Your task to perform on an android device: turn off airplane mode Image 0: 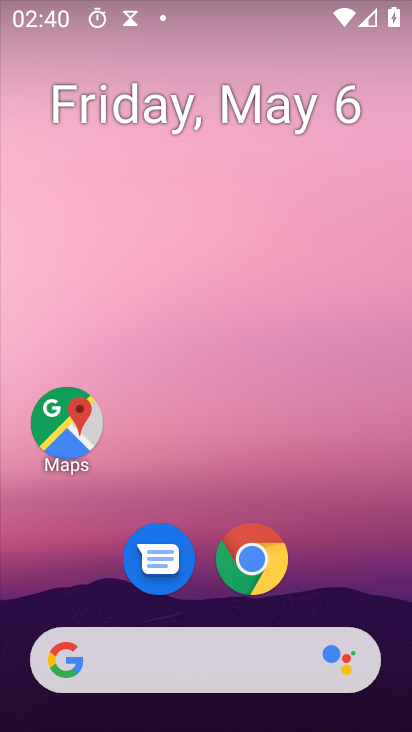
Step 0: drag from (330, 591) to (293, 5)
Your task to perform on an android device: turn off airplane mode Image 1: 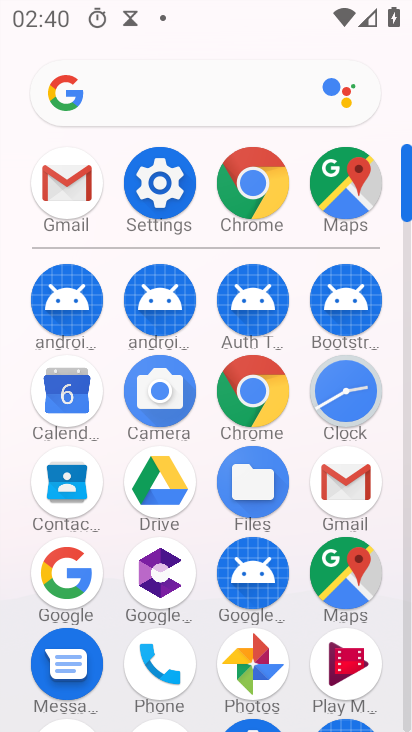
Step 1: click (160, 179)
Your task to perform on an android device: turn off airplane mode Image 2: 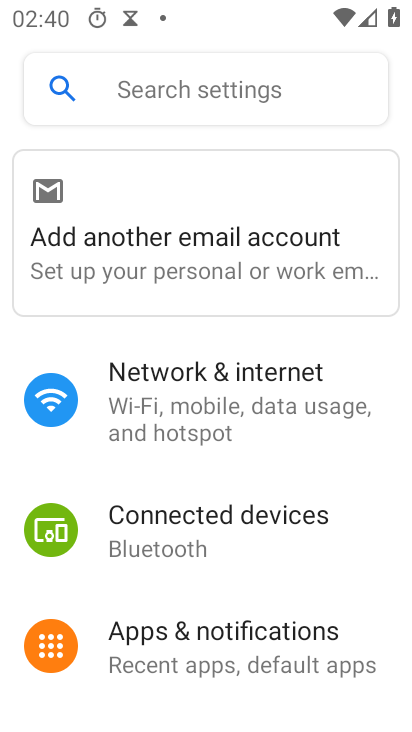
Step 2: click (221, 425)
Your task to perform on an android device: turn off airplane mode Image 3: 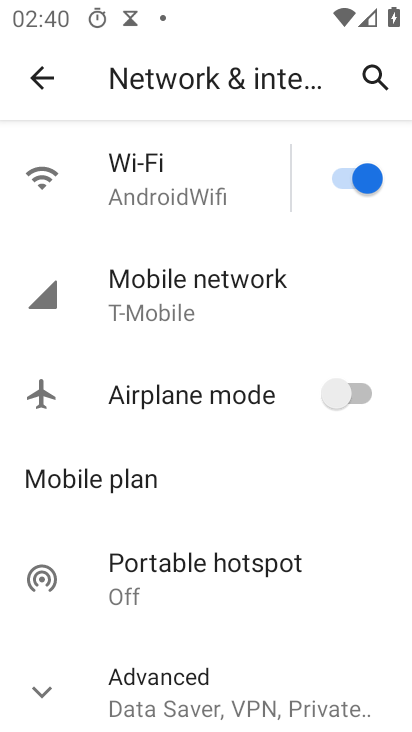
Step 3: task complete